Your task to perform on an android device: open app "Spotify: Music and Podcasts" Image 0: 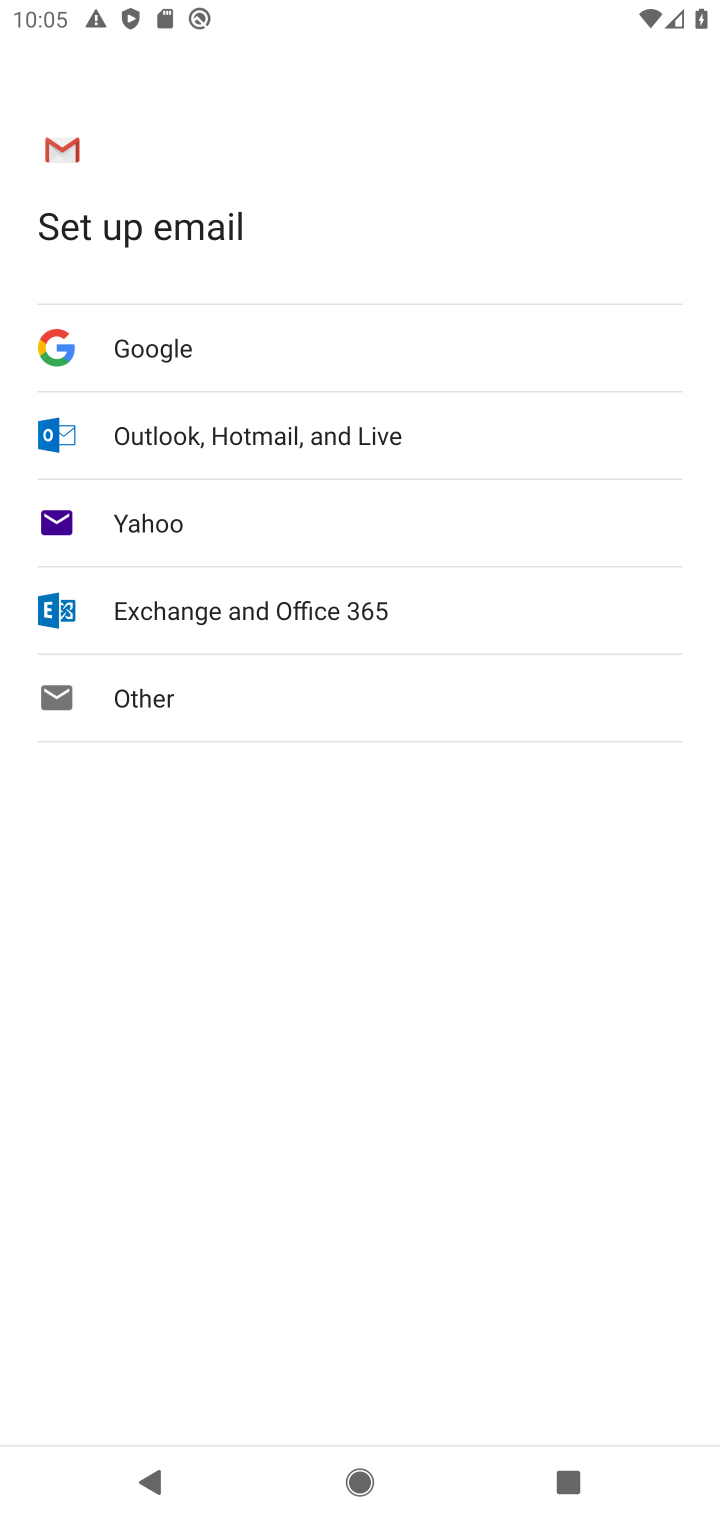
Step 0: press home button
Your task to perform on an android device: open app "Spotify: Music and Podcasts" Image 1: 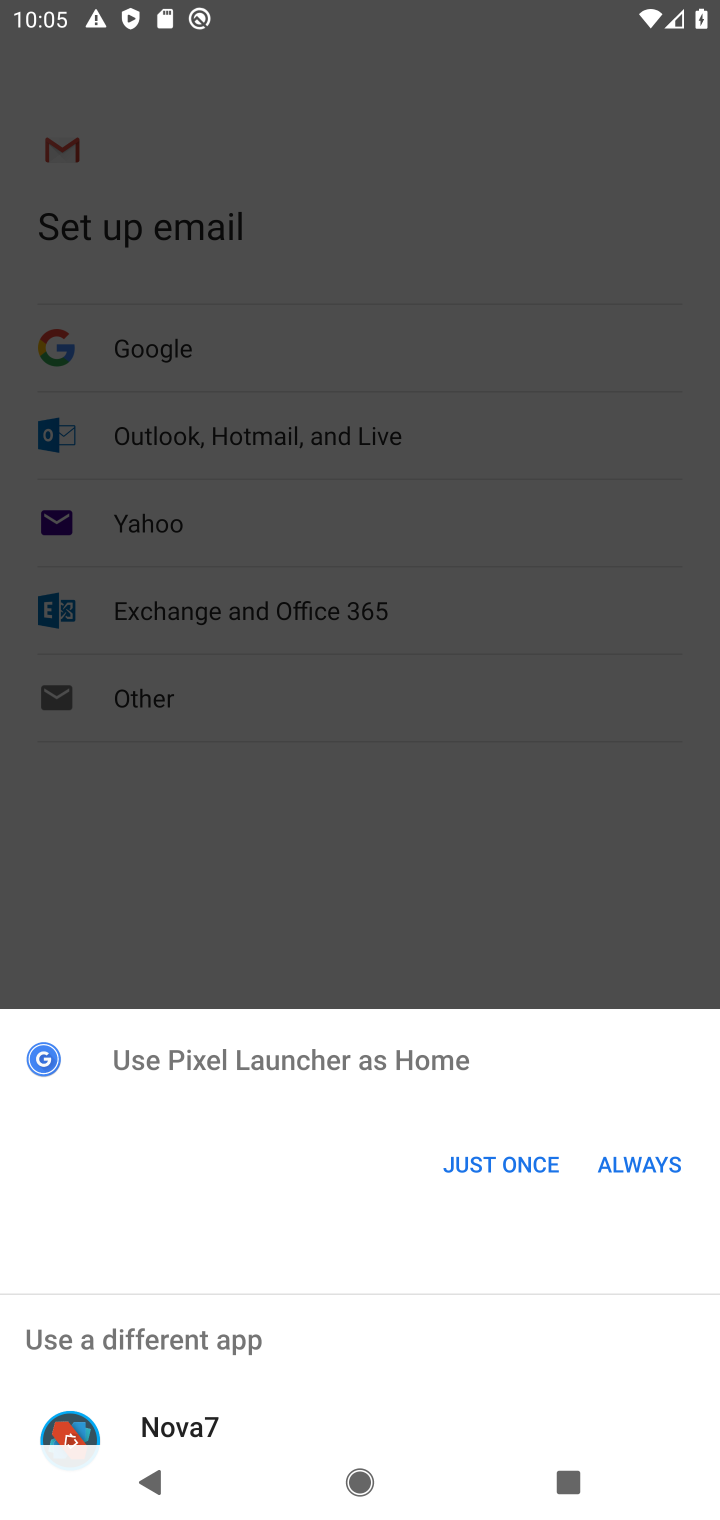
Step 1: click (583, 855)
Your task to perform on an android device: open app "Spotify: Music and Podcasts" Image 2: 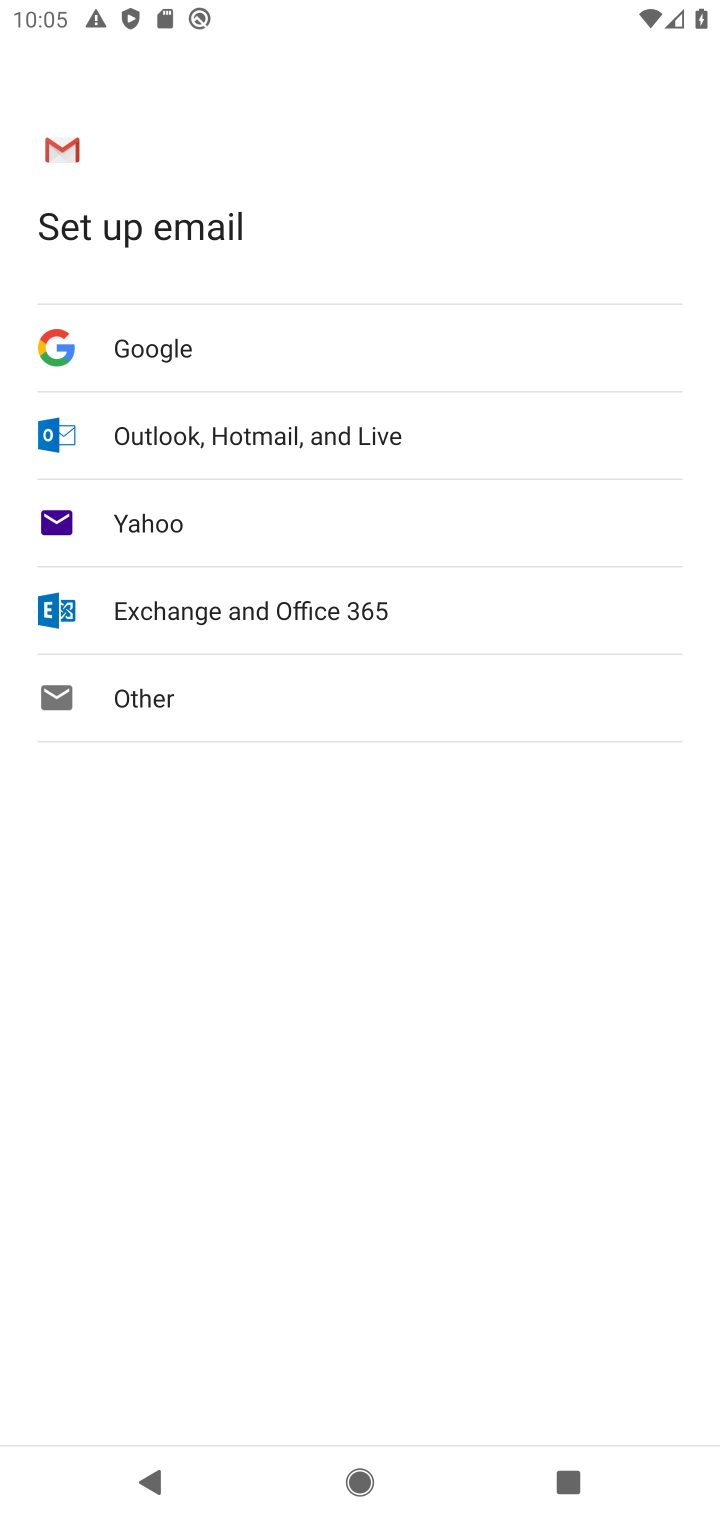
Step 2: press home button
Your task to perform on an android device: open app "Spotify: Music and Podcasts" Image 3: 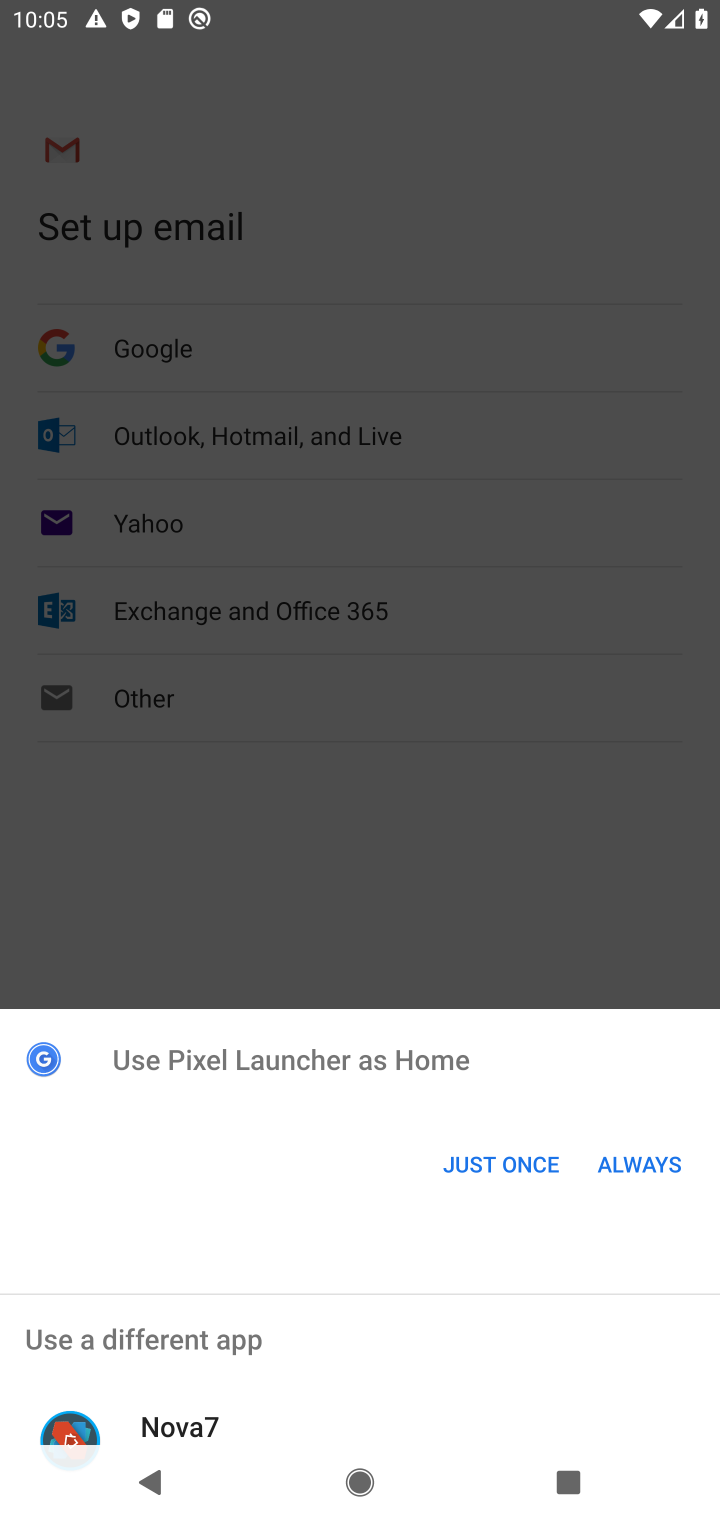
Step 3: click (556, 788)
Your task to perform on an android device: open app "Spotify: Music and Podcasts" Image 4: 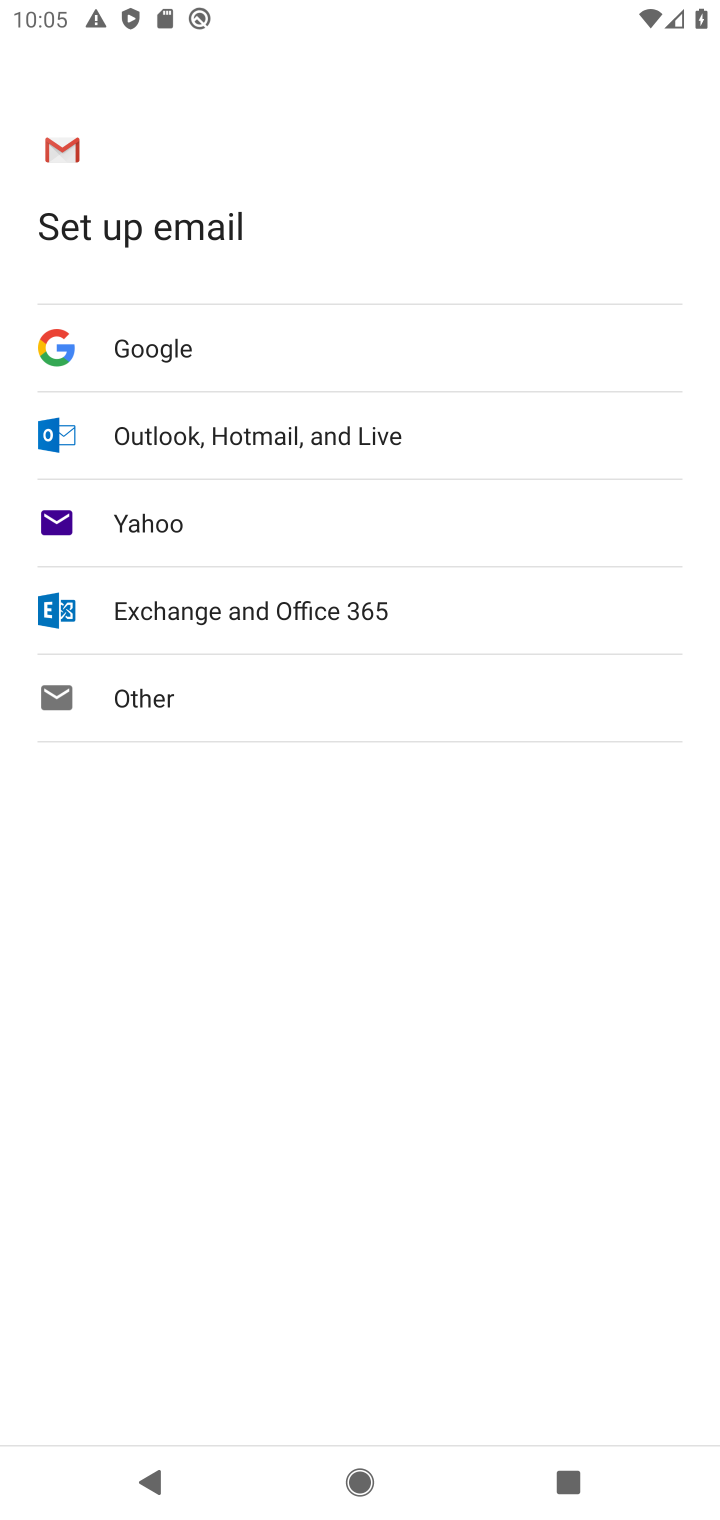
Step 4: click (365, 1470)
Your task to perform on an android device: open app "Spotify: Music and Podcasts" Image 5: 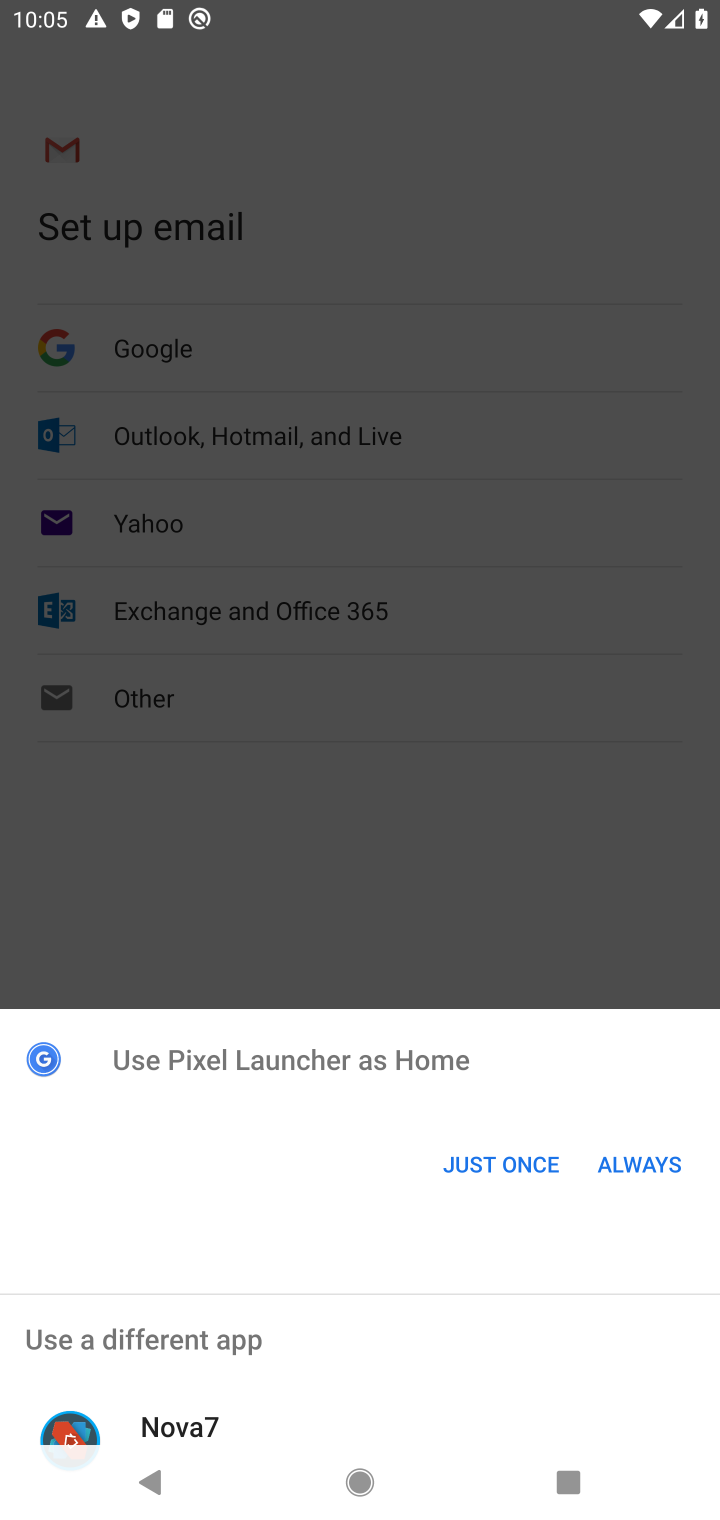
Step 5: click (365, 1470)
Your task to perform on an android device: open app "Spotify: Music and Podcasts" Image 6: 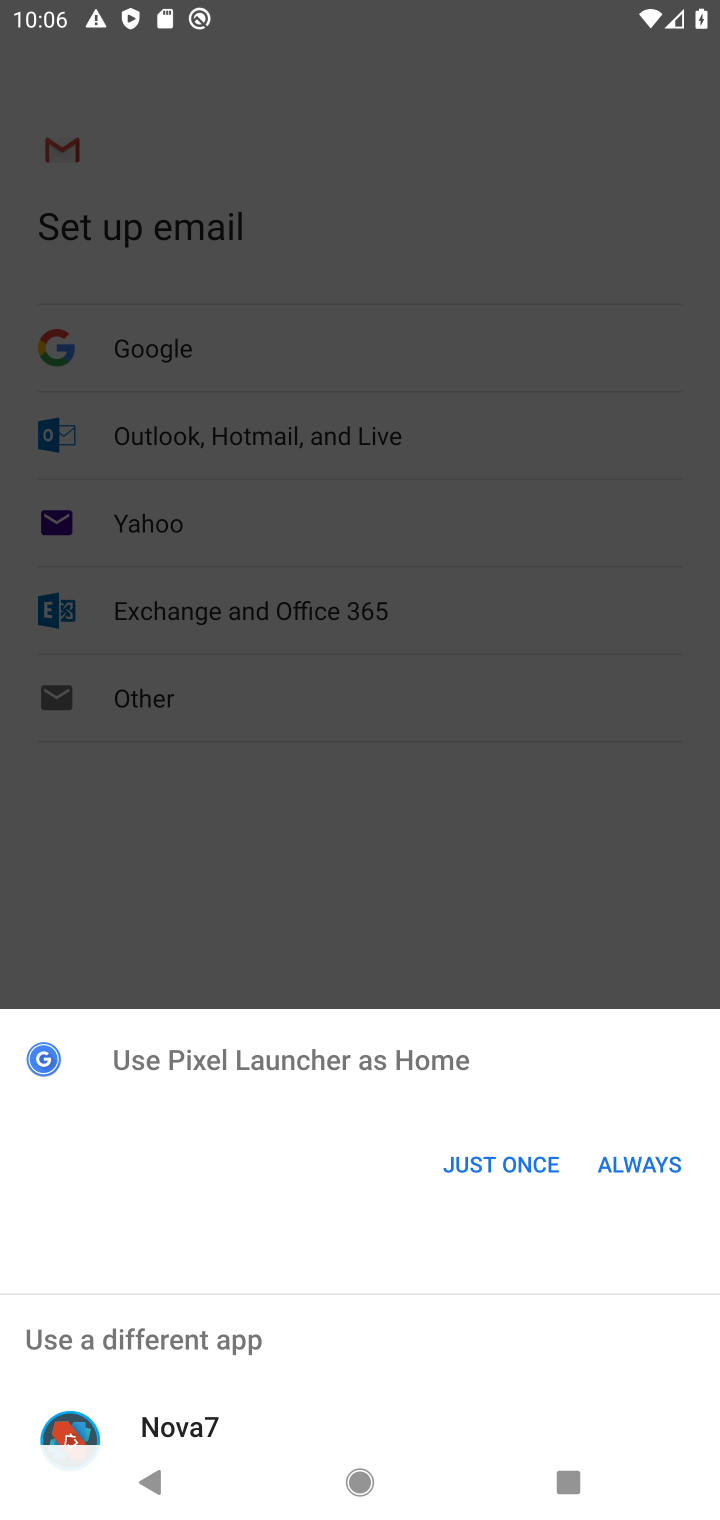
Step 6: click (365, 1470)
Your task to perform on an android device: open app "Spotify: Music and Podcasts" Image 7: 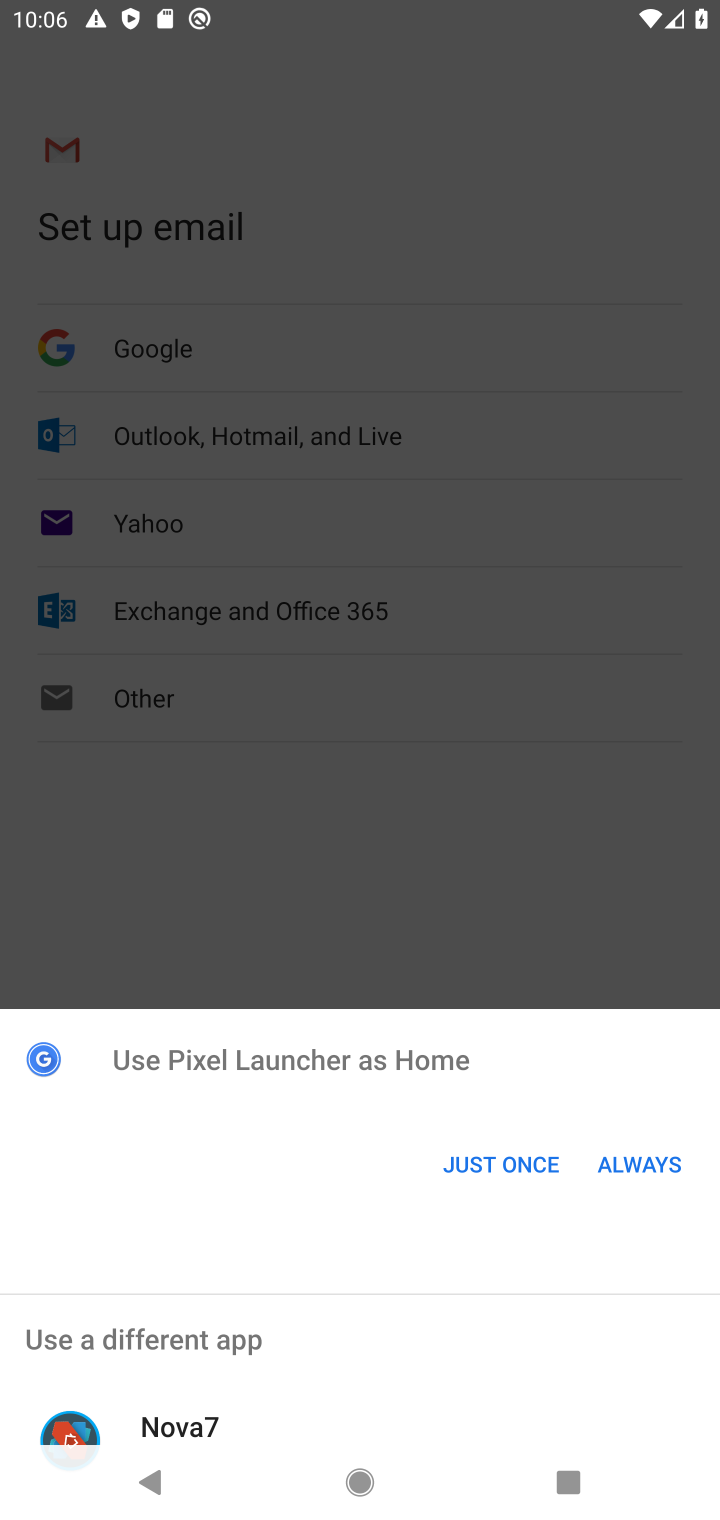
Step 7: click (365, 1470)
Your task to perform on an android device: open app "Spotify: Music and Podcasts" Image 8: 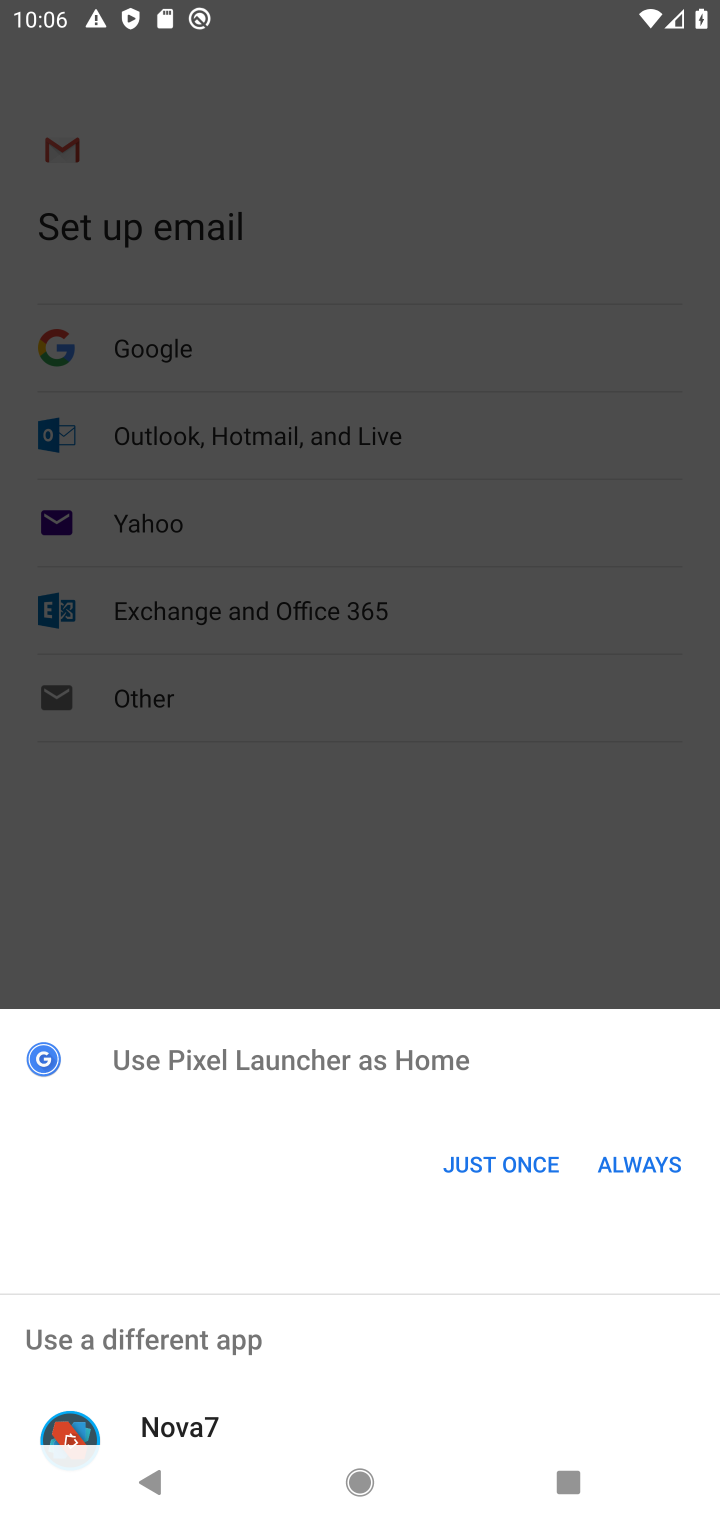
Step 8: click (365, 1470)
Your task to perform on an android device: open app "Spotify: Music and Podcasts" Image 9: 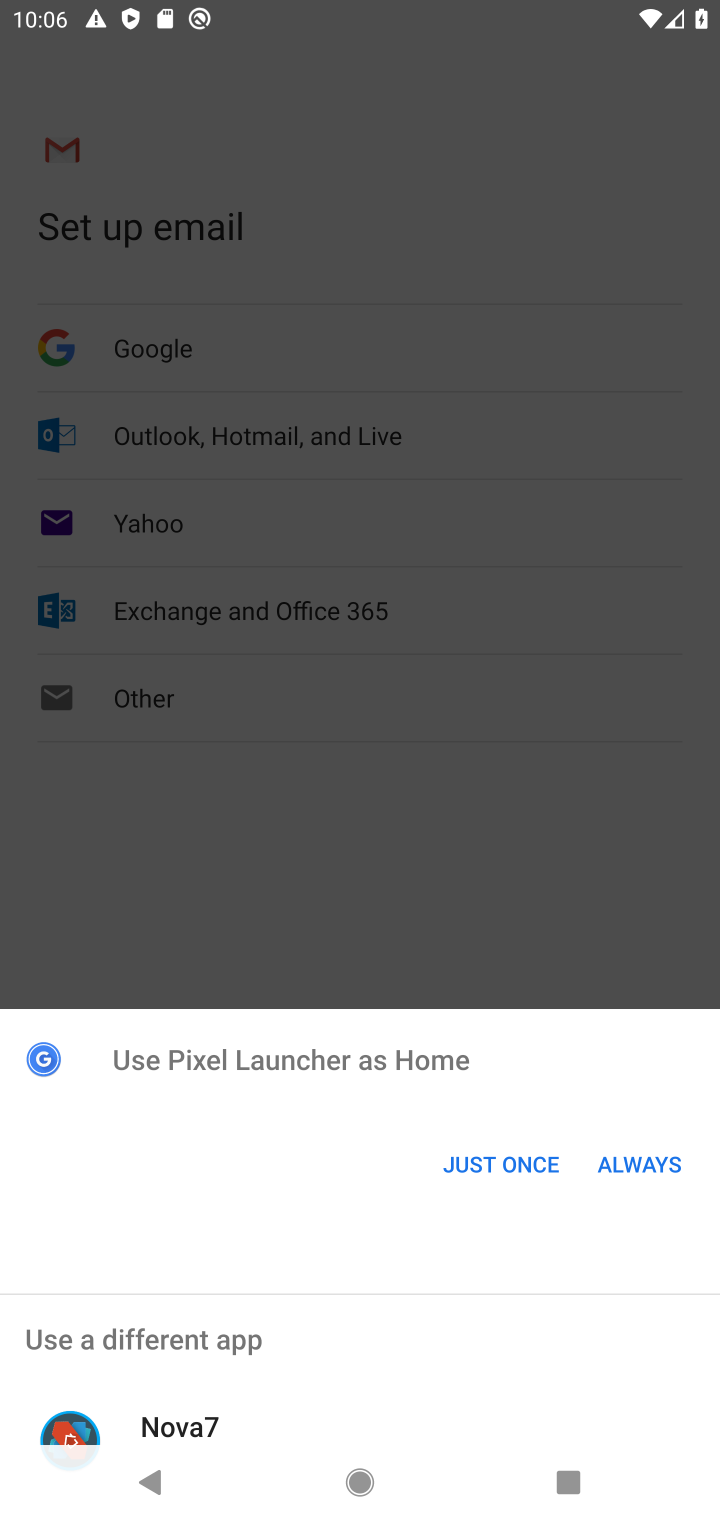
Step 9: task complete